Your task to perform on an android device: Add "jbl charge 4" to the cart on newegg, then select checkout. Image 0: 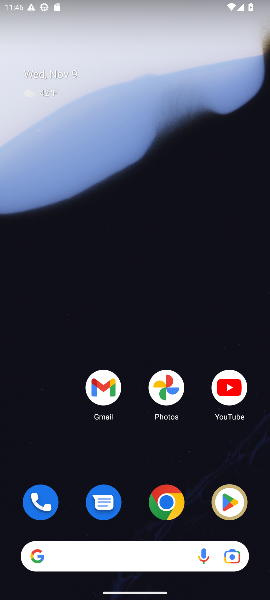
Step 0: drag from (127, 466) to (125, 112)
Your task to perform on an android device: Add "jbl charge 4" to the cart on newegg, then select checkout. Image 1: 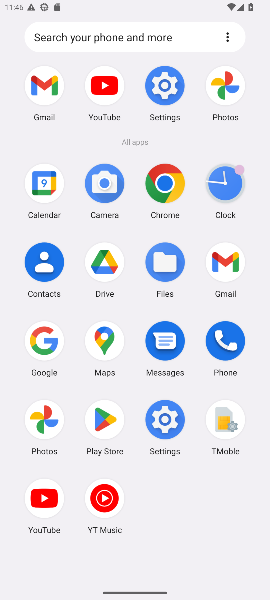
Step 1: click (166, 181)
Your task to perform on an android device: Add "jbl charge 4" to the cart on newegg, then select checkout. Image 2: 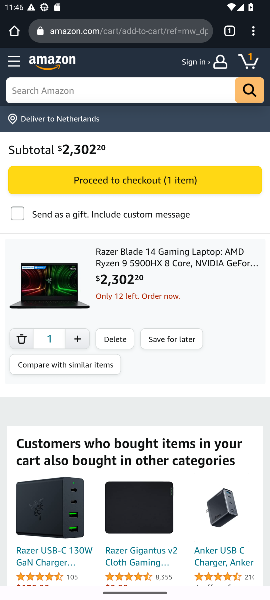
Step 2: click (109, 37)
Your task to perform on an android device: Add "jbl charge 4" to the cart on newegg, then select checkout. Image 3: 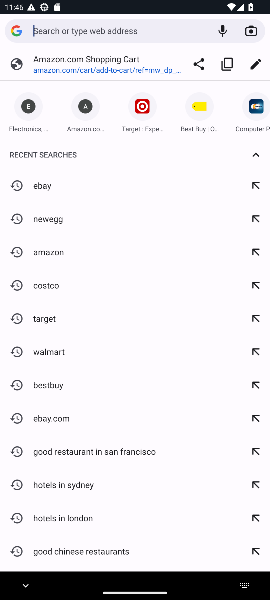
Step 3: type "newegg.com"
Your task to perform on an android device: Add "jbl charge 4" to the cart on newegg, then select checkout. Image 4: 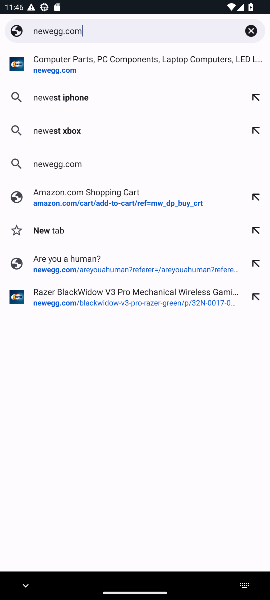
Step 4: press enter
Your task to perform on an android device: Add "jbl charge 4" to the cart on newegg, then select checkout. Image 5: 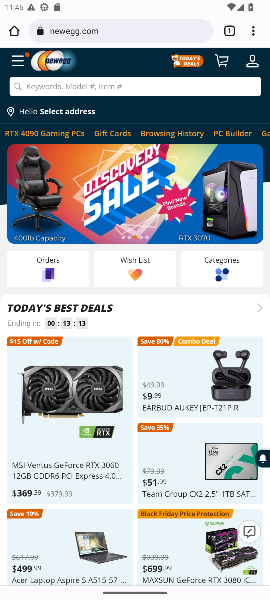
Step 5: click (141, 84)
Your task to perform on an android device: Add "jbl charge 4" to the cart on newegg, then select checkout. Image 6: 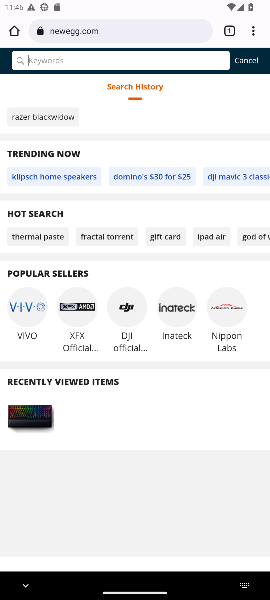
Step 6: type "jbl charge 4"
Your task to perform on an android device: Add "jbl charge 4" to the cart on newegg, then select checkout. Image 7: 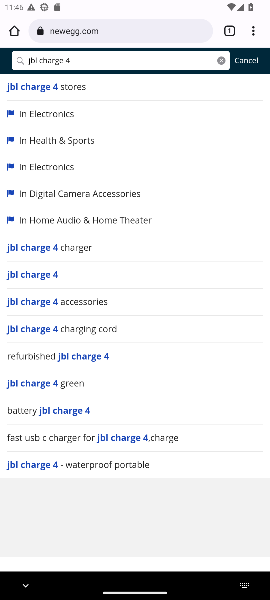
Step 7: press enter
Your task to perform on an android device: Add "jbl charge 4" to the cart on newegg, then select checkout. Image 8: 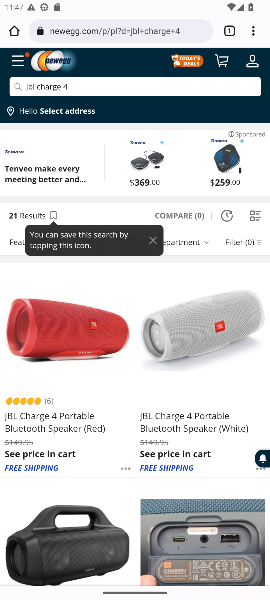
Step 8: click (65, 422)
Your task to perform on an android device: Add "jbl charge 4" to the cart on newegg, then select checkout. Image 9: 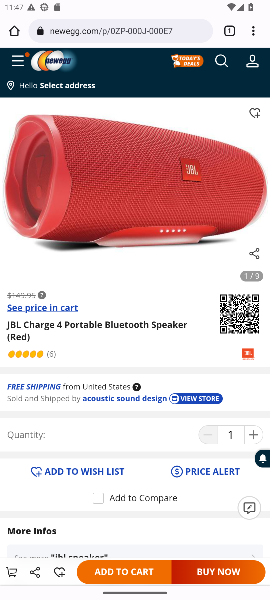
Step 9: click (137, 575)
Your task to perform on an android device: Add "jbl charge 4" to the cart on newegg, then select checkout. Image 10: 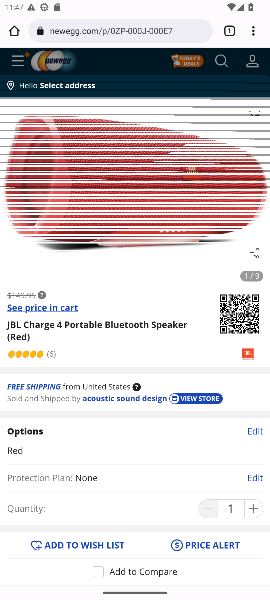
Step 10: drag from (141, 494) to (136, 295)
Your task to perform on an android device: Add "jbl charge 4" to the cart on newegg, then select checkout. Image 11: 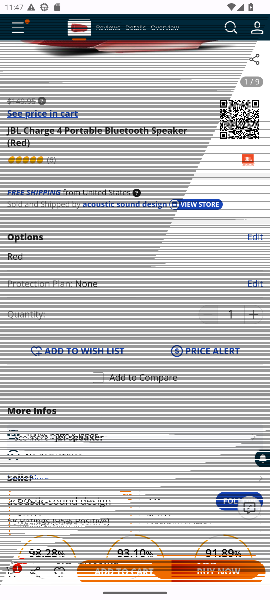
Step 11: click (17, 571)
Your task to perform on an android device: Add "jbl charge 4" to the cart on newegg, then select checkout. Image 12: 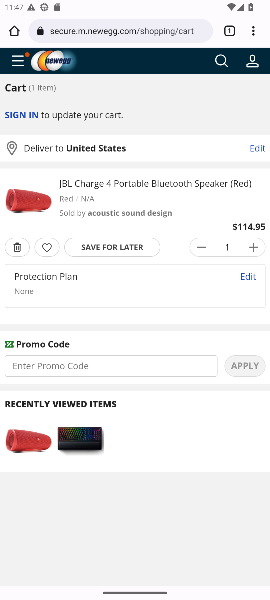
Step 12: click (149, 421)
Your task to perform on an android device: Add "jbl charge 4" to the cart on newegg, then select checkout. Image 13: 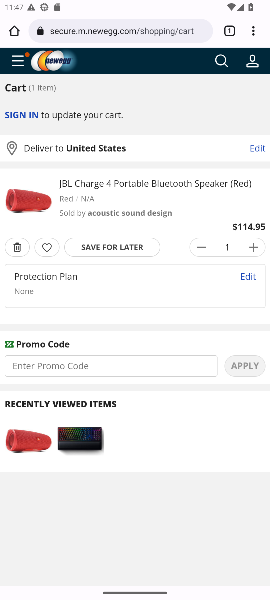
Step 13: drag from (131, 485) to (137, 193)
Your task to perform on an android device: Add "jbl charge 4" to the cart on newegg, then select checkout. Image 14: 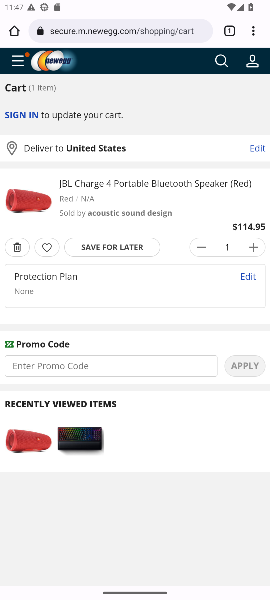
Step 14: drag from (137, 192) to (169, 478)
Your task to perform on an android device: Add "jbl charge 4" to the cart on newegg, then select checkout. Image 15: 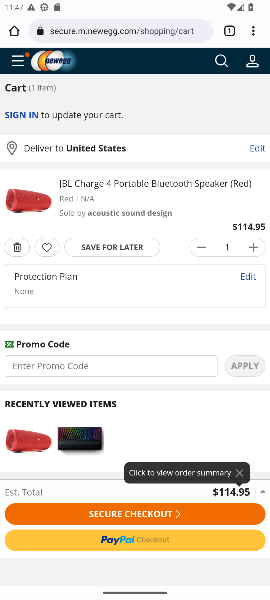
Step 15: click (148, 510)
Your task to perform on an android device: Add "jbl charge 4" to the cart on newegg, then select checkout. Image 16: 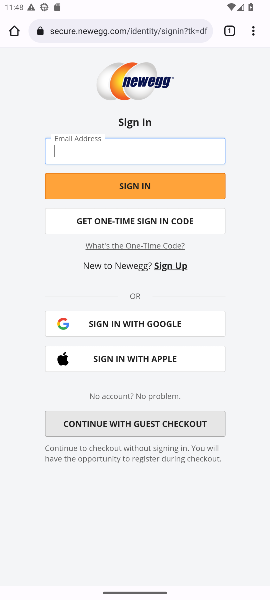
Step 16: task complete